Your task to perform on an android device: move an email to a new category in the gmail app Image 0: 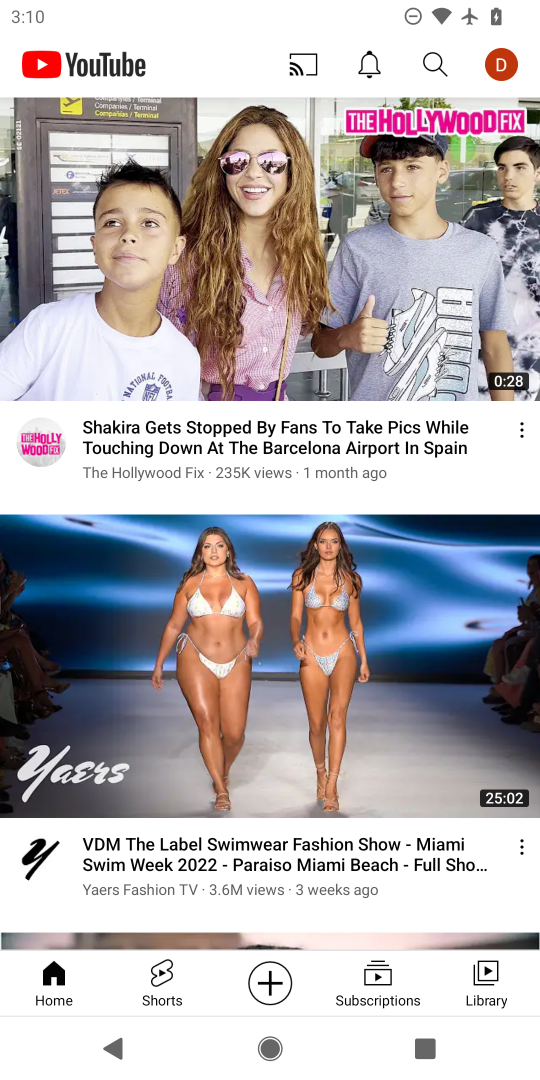
Step 0: press home button
Your task to perform on an android device: move an email to a new category in the gmail app Image 1: 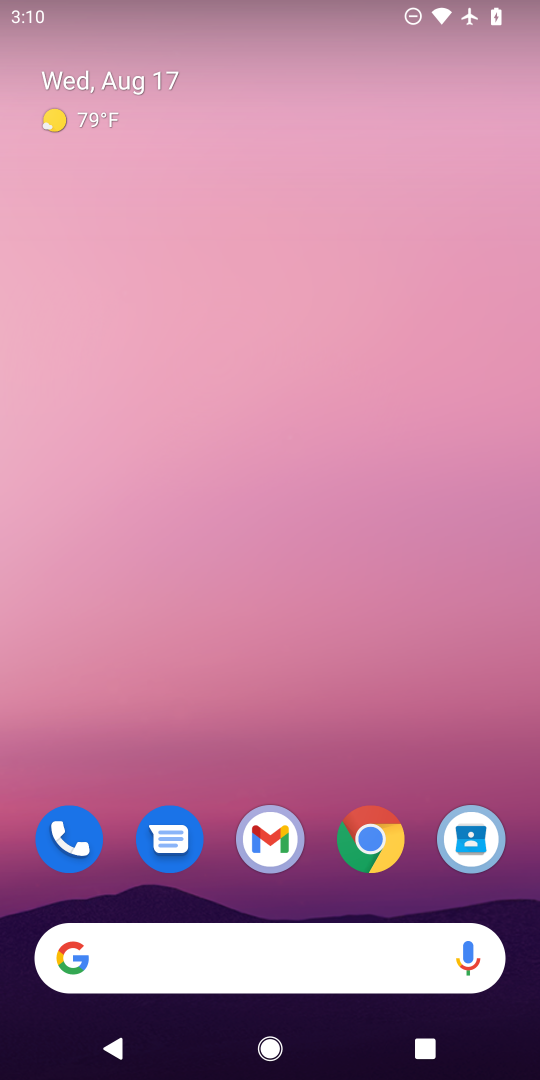
Step 1: drag from (326, 896) to (289, 235)
Your task to perform on an android device: move an email to a new category in the gmail app Image 2: 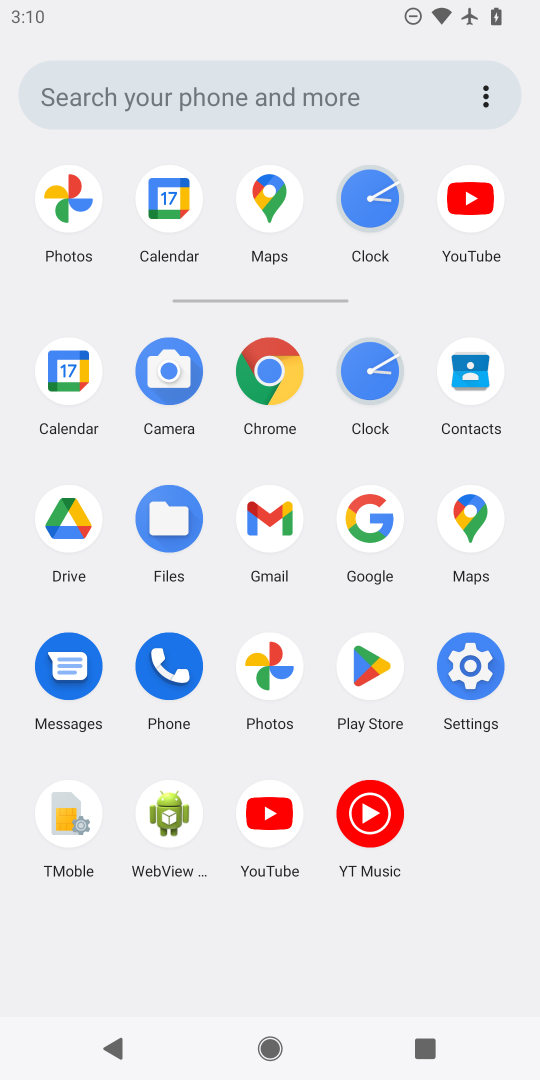
Step 2: click (268, 517)
Your task to perform on an android device: move an email to a new category in the gmail app Image 3: 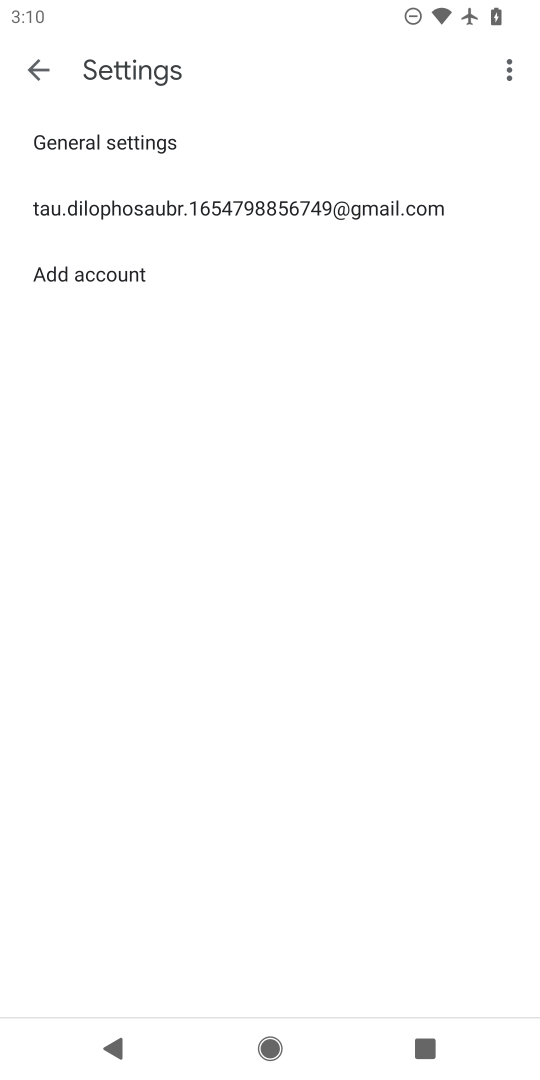
Step 3: click (36, 68)
Your task to perform on an android device: move an email to a new category in the gmail app Image 4: 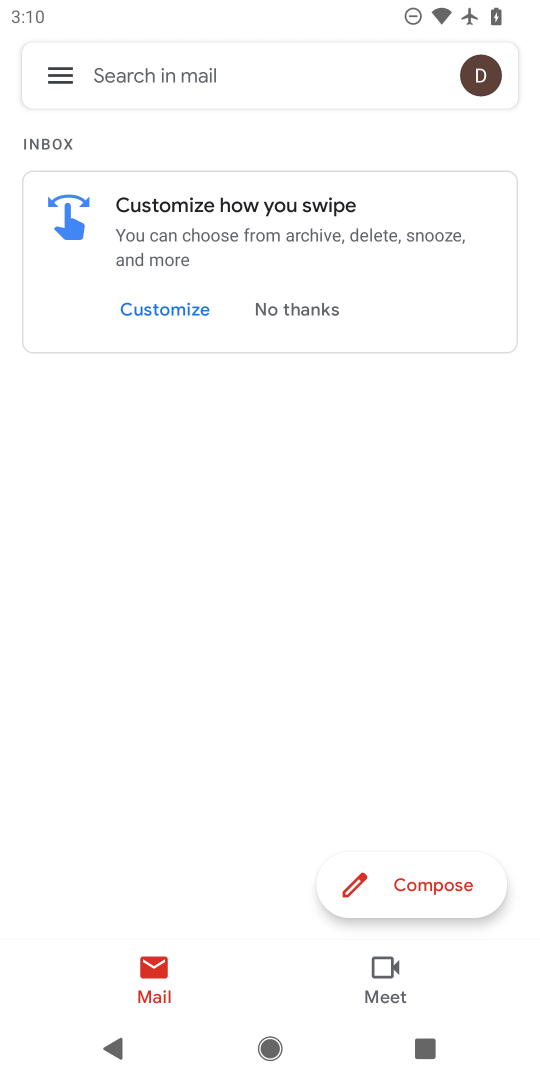
Step 4: task complete